Your task to perform on an android device: Go to eBay Image 0: 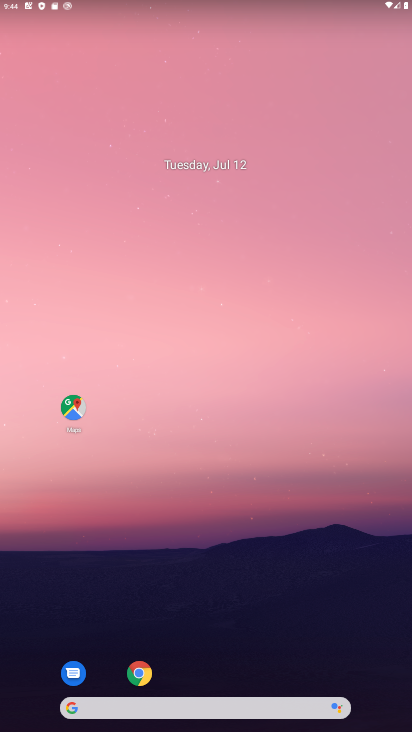
Step 0: click (139, 673)
Your task to perform on an android device: Go to eBay Image 1: 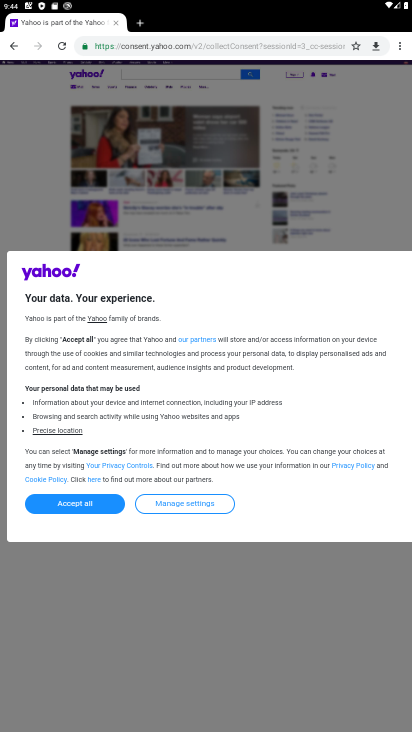
Step 1: press back button
Your task to perform on an android device: Go to eBay Image 2: 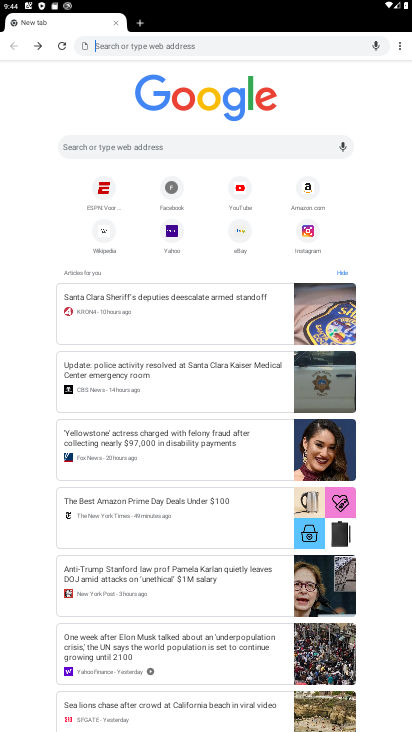
Step 2: click (234, 235)
Your task to perform on an android device: Go to eBay Image 3: 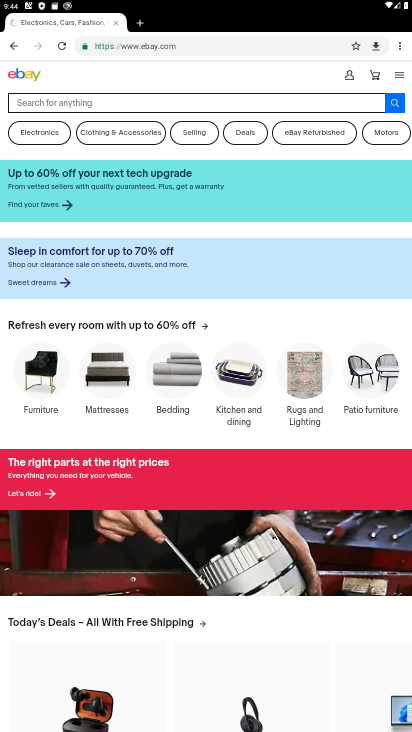
Step 3: task complete